Your task to perform on an android device: open app "Viber Messenger" (install if not already installed) Image 0: 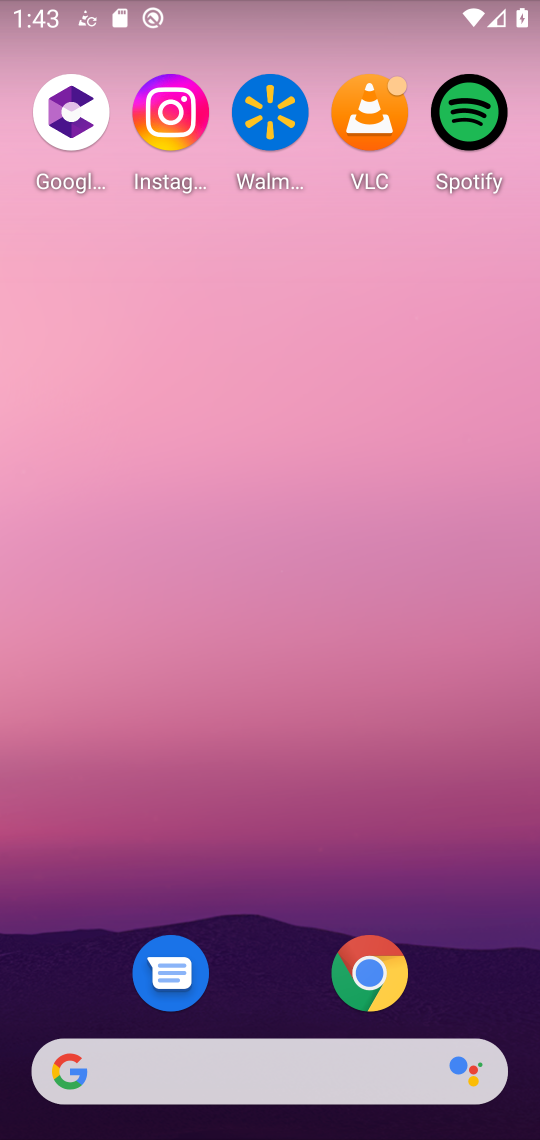
Step 0: drag from (251, 871) to (315, 350)
Your task to perform on an android device: open app "Viber Messenger" (install if not already installed) Image 1: 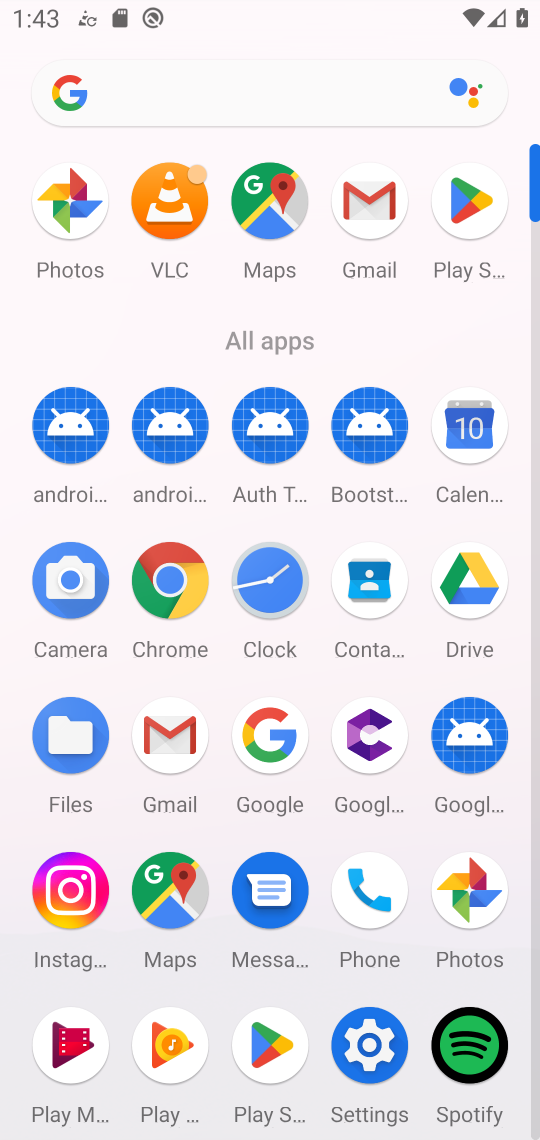
Step 1: click (460, 197)
Your task to perform on an android device: open app "Viber Messenger" (install if not already installed) Image 2: 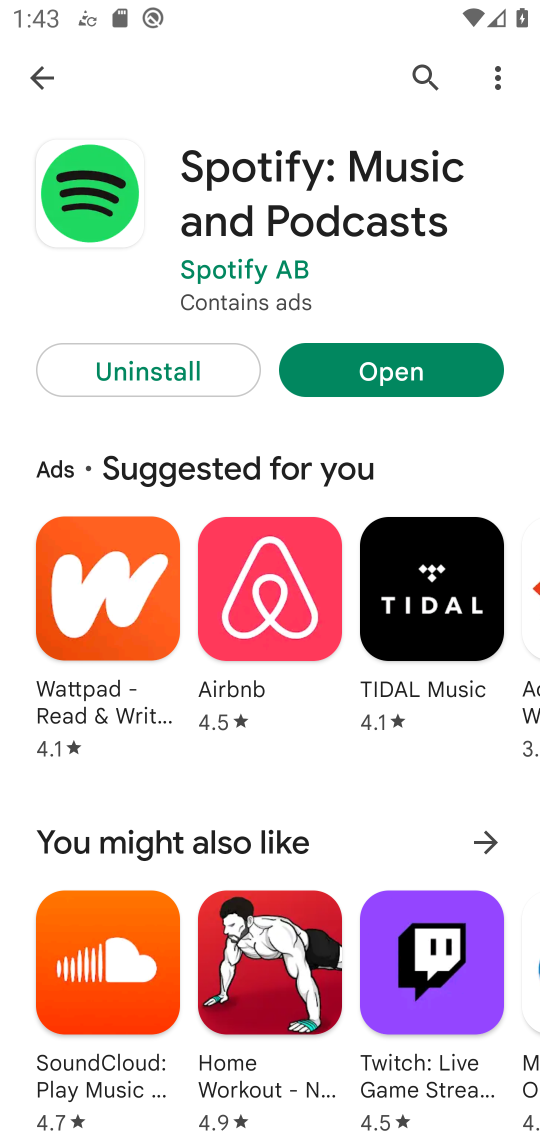
Step 2: click (69, 91)
Your task to perform on an android device: open app "Viber Messenger" (install if not already installed) Image 3: 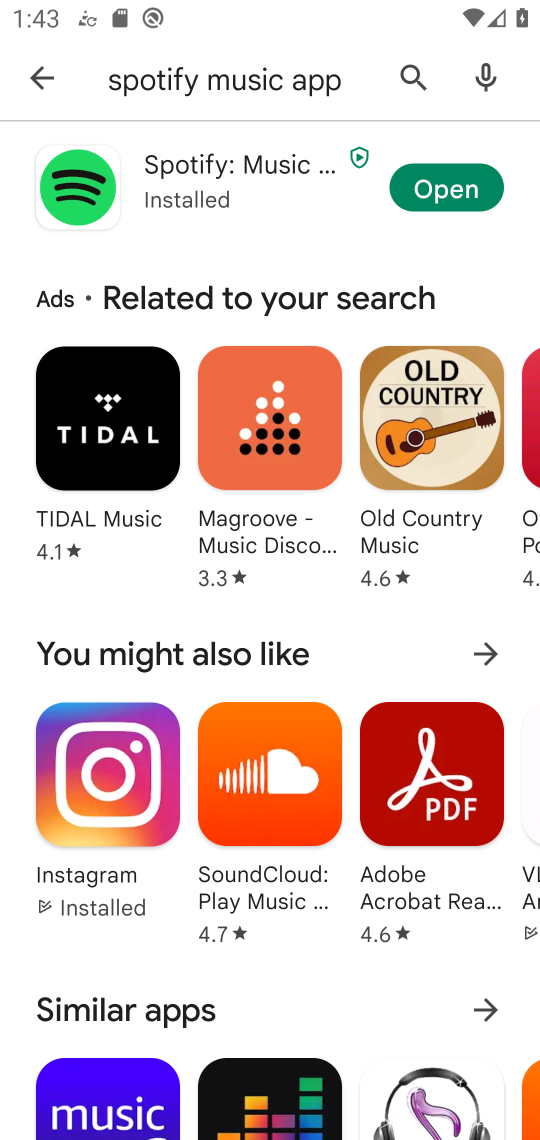
Step 3: click (44, 80)
Your task to perform on an android device: open app "Viber Messenger" (install if not already installed) Image 4: 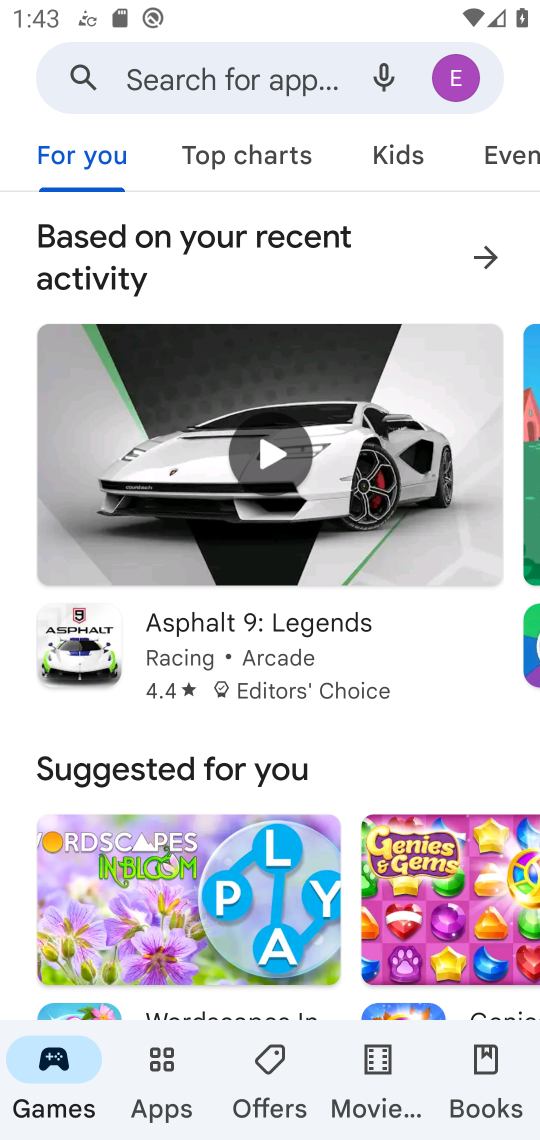
Step 4: click (202, 67)
Your task to perform on an android device: open app "Viber Messenger" (install if not already installed) Image 5: 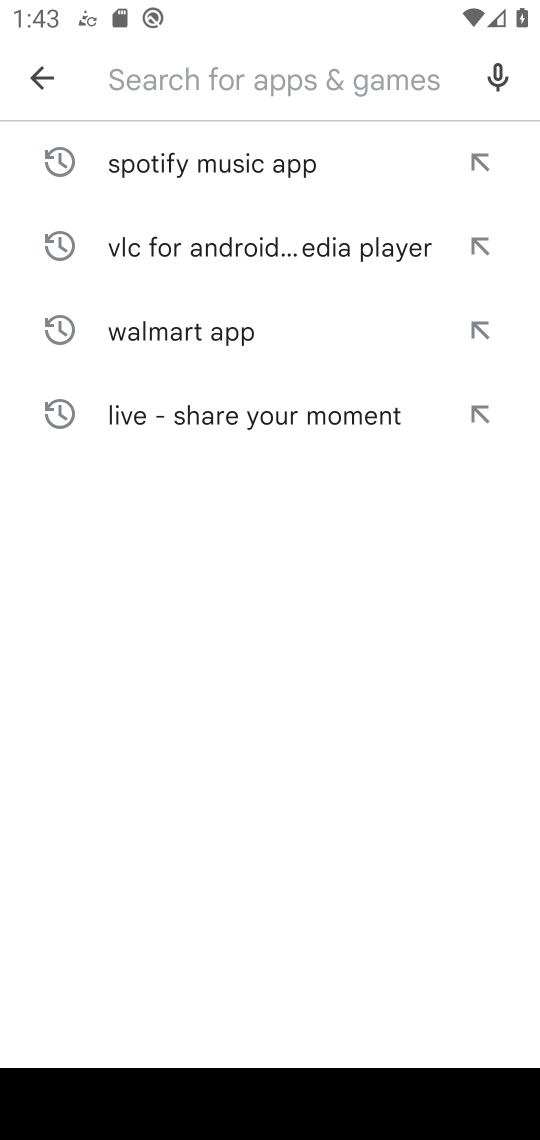
Step 5: type "viber messsager "
Your task to perform on an android device: open app "Viber Messenger" (install if not already installed) Image 6: 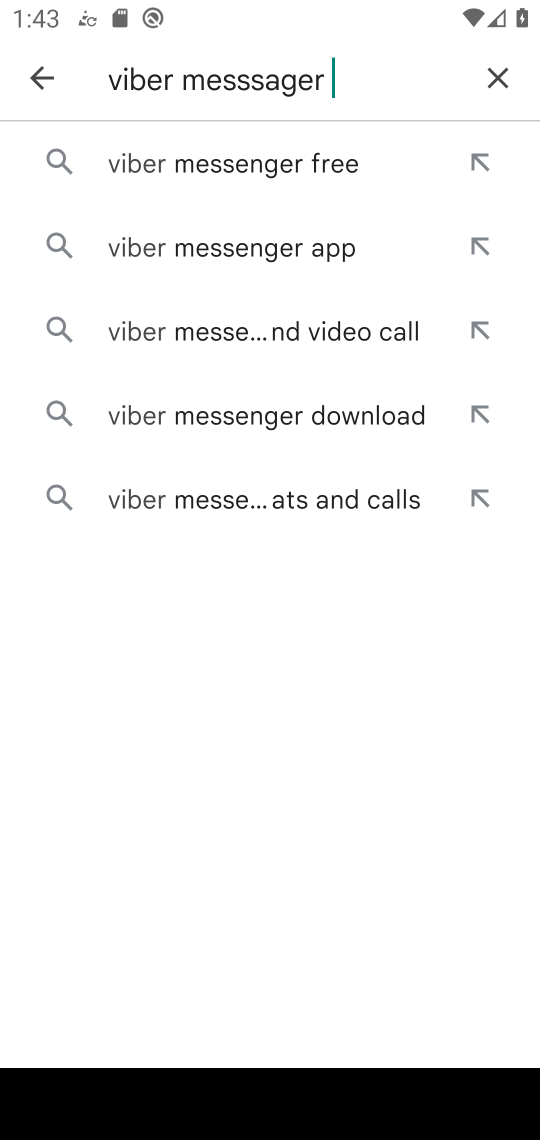
Step 6: click (233, 176)
Your task to perform on an android device: open app "Viber Messenger" (install if not already installed) Image 7: 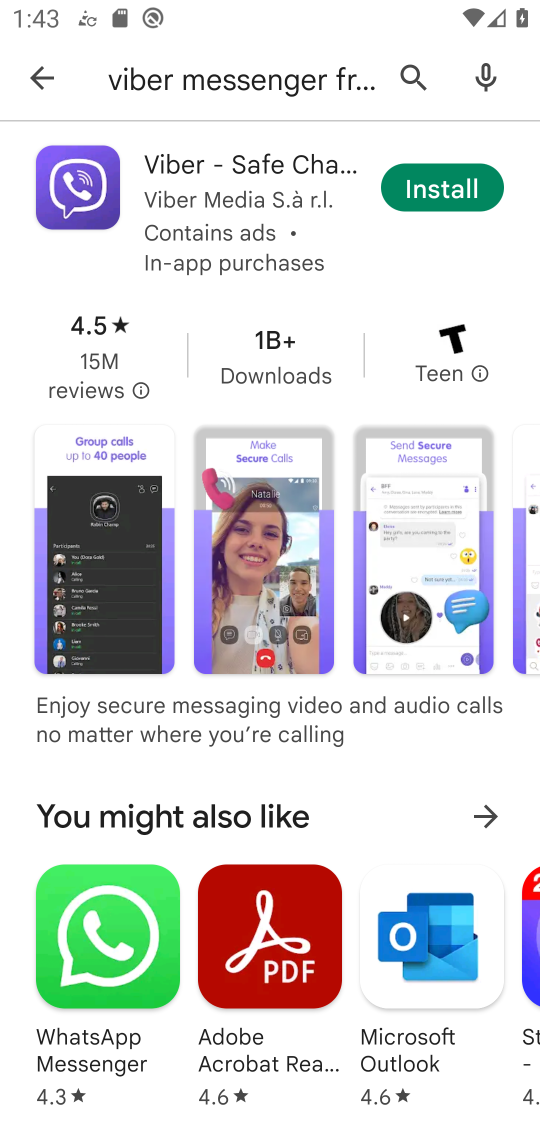
Step 7: click (416, 188)
Your task to perform on an android device: open app "Viber Messenger" (install if not already installed) Image 8: 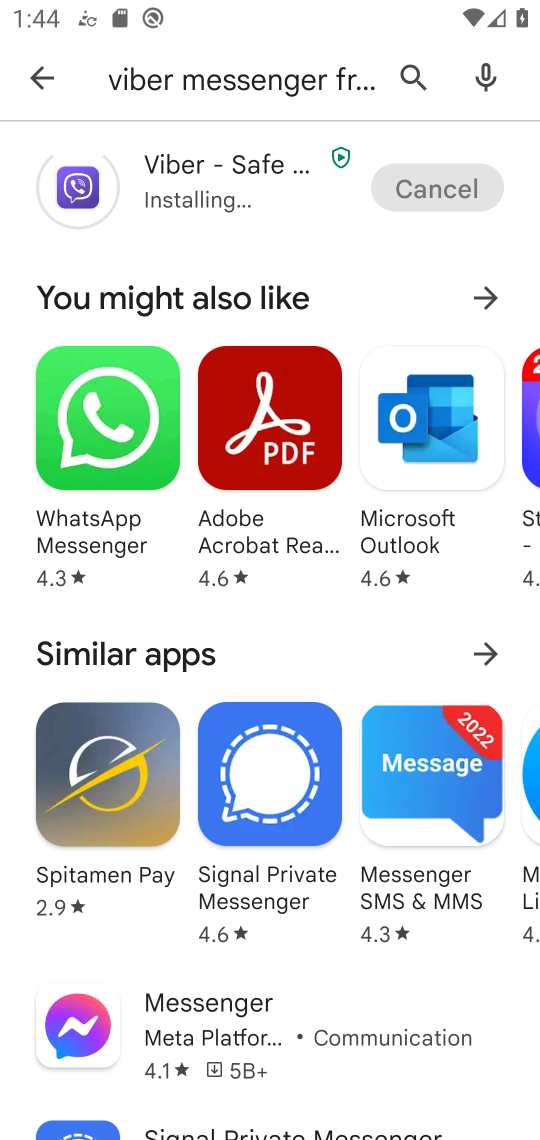
Step 8: click (178, 195)
Your task to perform on an android device: open app "Viber Messenger" (install if not already installed) Image 9: 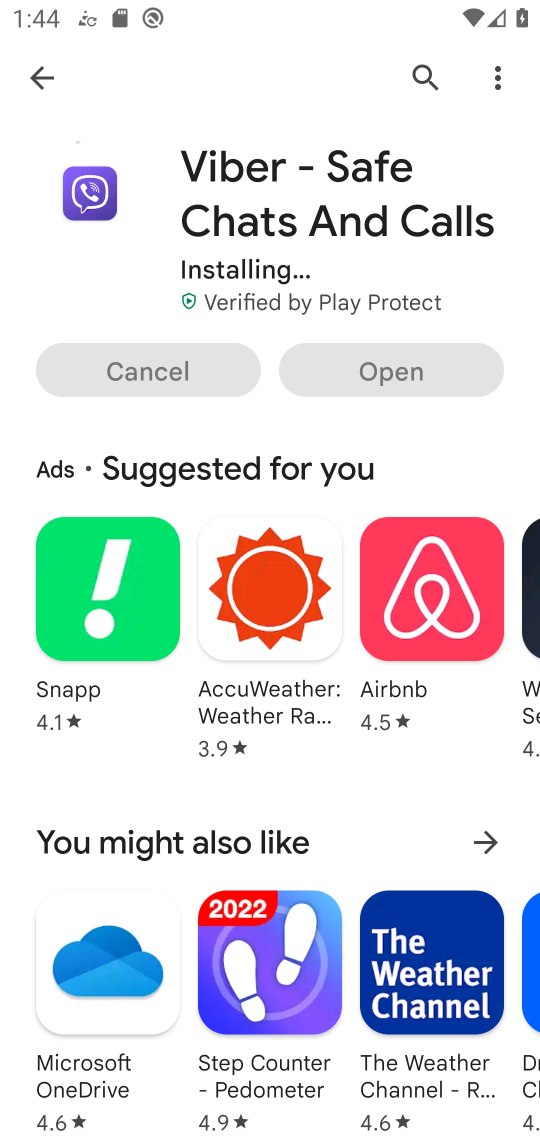
Step 9: click (339, 371)
Your task to perform on an android device: open app "Viber Messenger" (install if not already installed) Image 10: 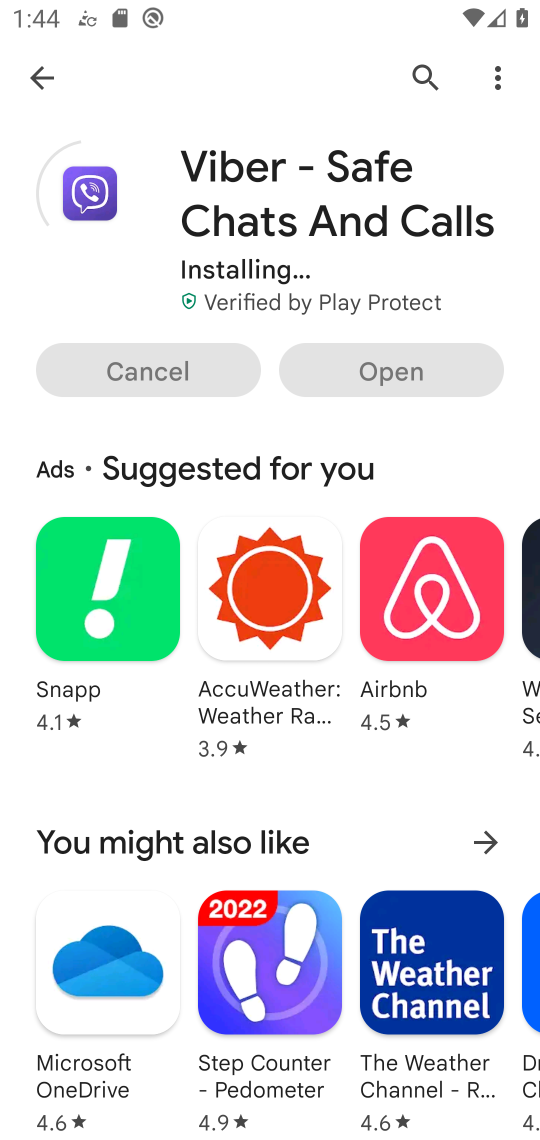
Step 10: click (339, 371)
Your task to perform on an android device: open app "Viber Messenger" (install if not already installed) Image 11: 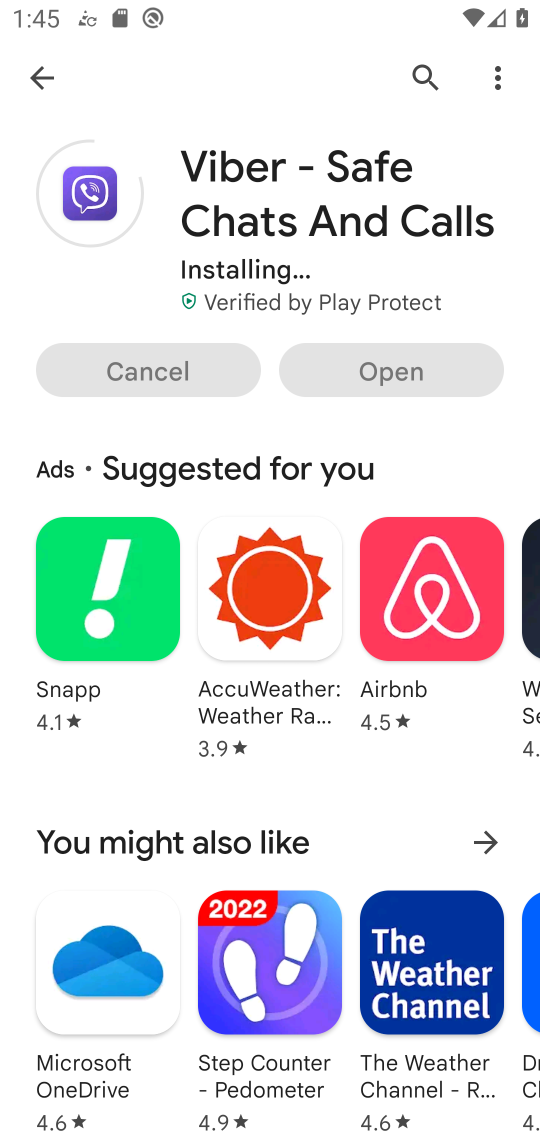
Step 11: click (339, 371)
Your task to perform on an android device: open app "Viber Messenger" (install if not already installed) Image 12: 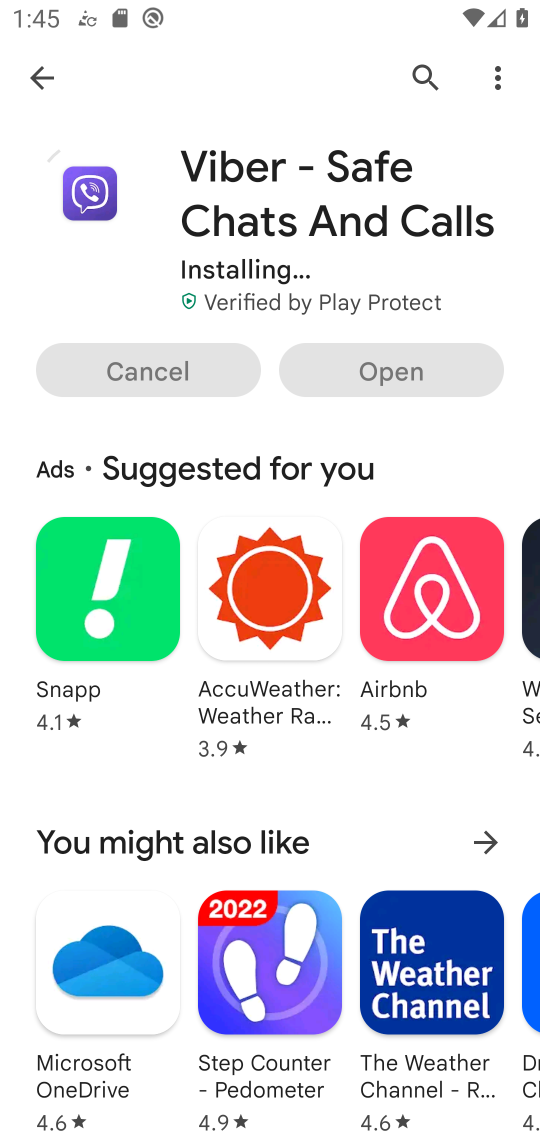
Step 12: task complete